Your task to perform on an android device: Show me productivity apps on the Play Store Image 0: 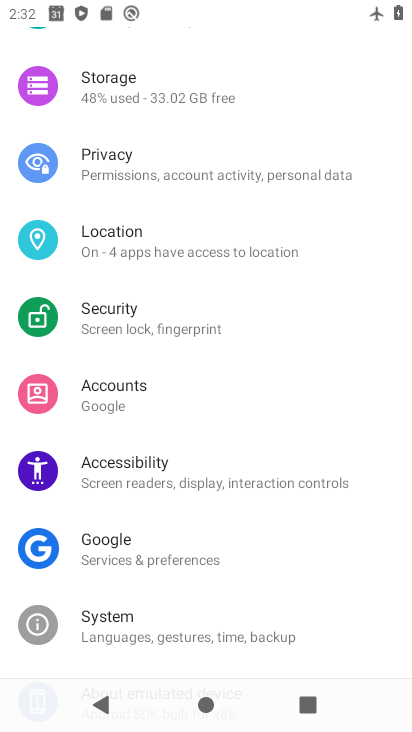
Step 0: press home button
Your task to perform on an android device: Show me productivity apps on the Play Store Image 1: 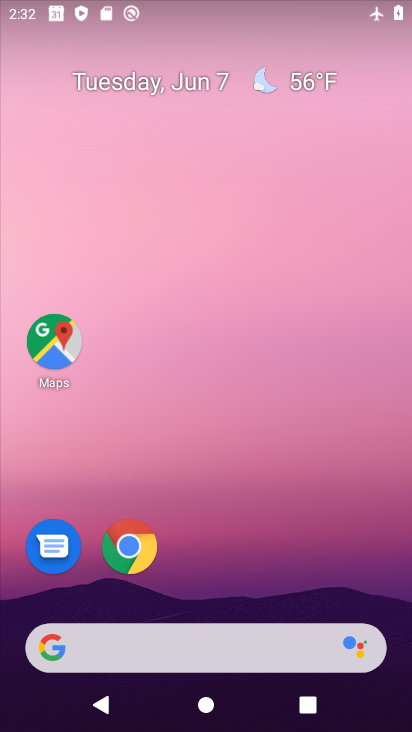
Step 1: drag from (211, 579) to (327, 63)
Your task to perform on an android device: Show me productivity apps on the Play Store Image 2: 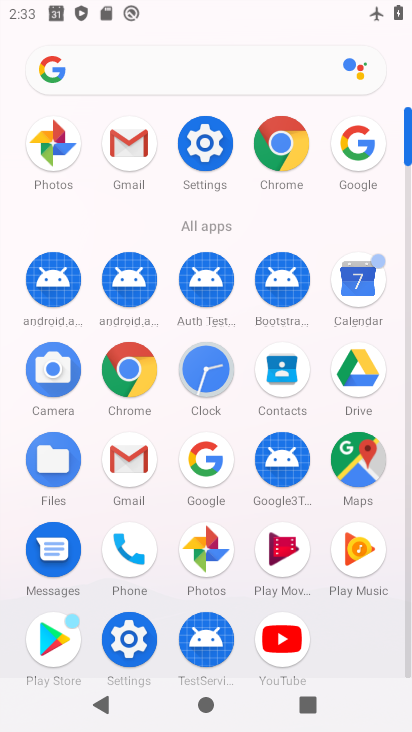
Step 2: click (61, 620)
Your task to perform on an android device: Show me productivity apps on the Play Store Image 3: 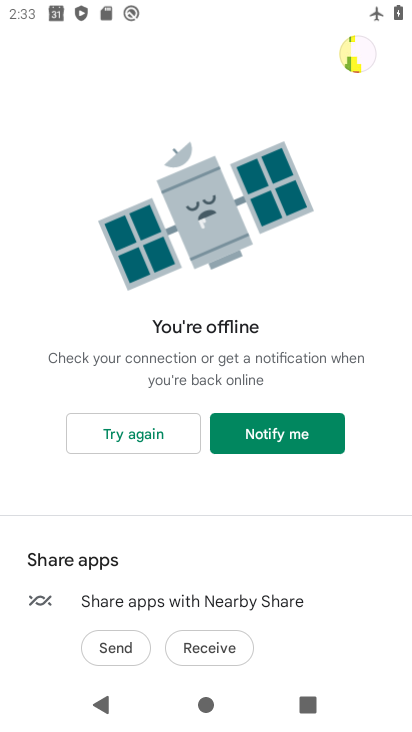
Step 3: task complete